Your task to perform on an android device: allow cookies in the chrome app Image 0: 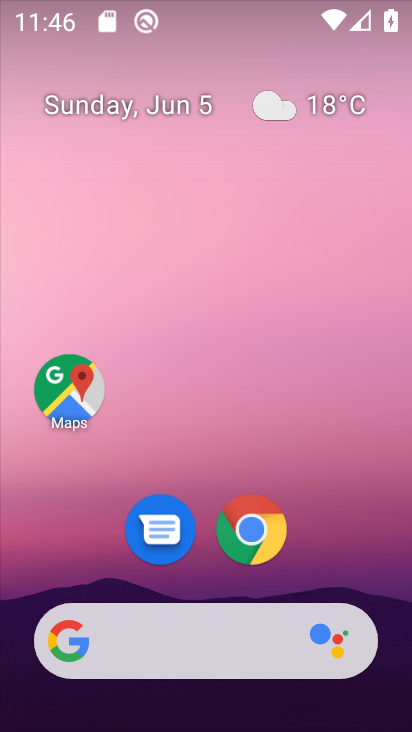
Step 0: click (254, 527)
Your task to perform on an android device: allow cookies in the chrome app Image 1: 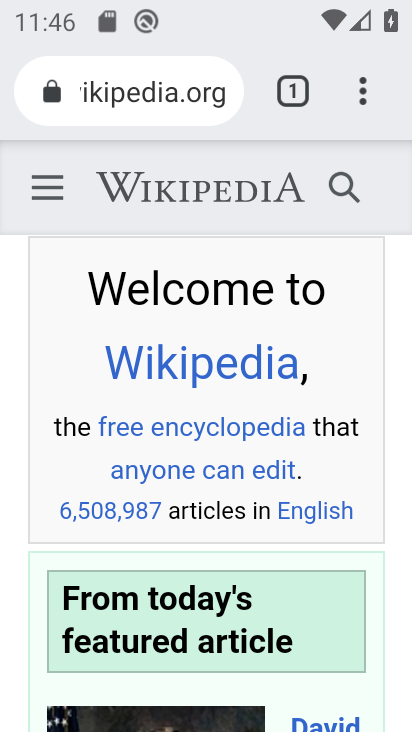
Step 1: click (358, 93)
Your task to perform on an android device: allow cookies in the chrome app Image 2: 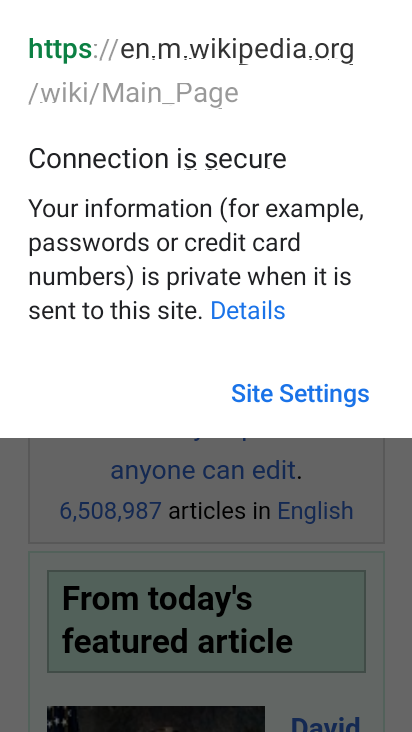
Step 2: click (192, 555)
Your task to perform on an android device: allow cookies in the chrome app Image 3: 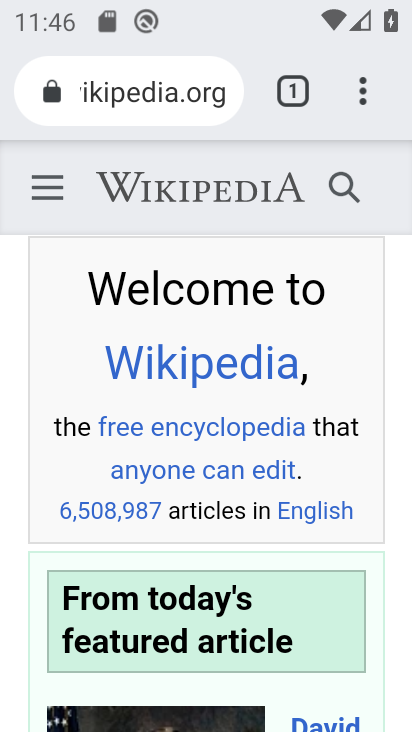
Step 3: click (366, 88)
Your task to perform on an android device: allow cookies in the chrome app Image 4: 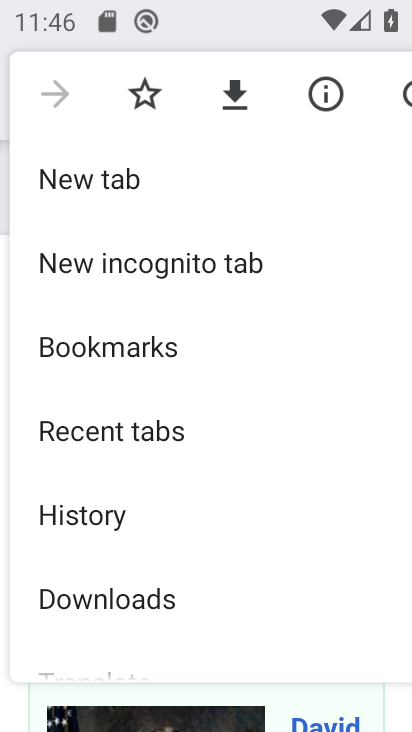
Step 4: drag from (153, 609) to (109, 215)
Your task to perform on an android device: allow cookies in the chrome app Image 5: 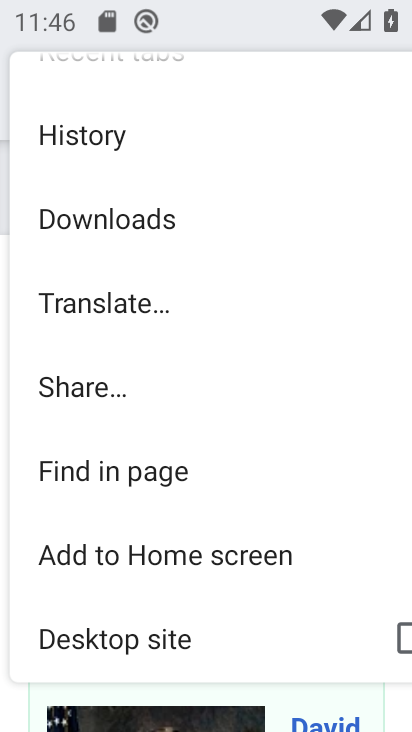
Step 5: drag from (123, 620) to (120, 230)
Your task to perform on an android device: allow cookies in the chrome app Image 6: 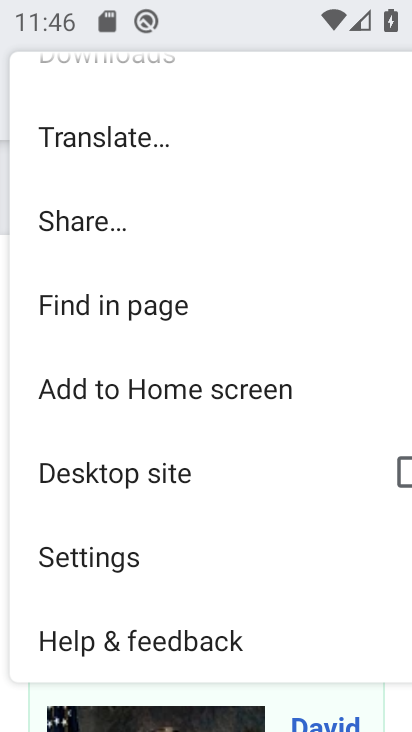
Step 6: click (138, 553)
Your task to perform on an android device: allow cookies in the chrome app Image 7: 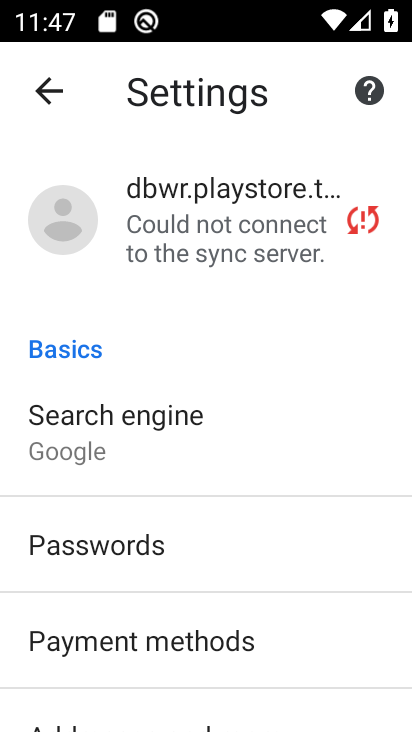
Step 7: drag from (229, 630) to (167, 248)
Your task to perform on an android device: allow cookies in the chrome app Image 8: 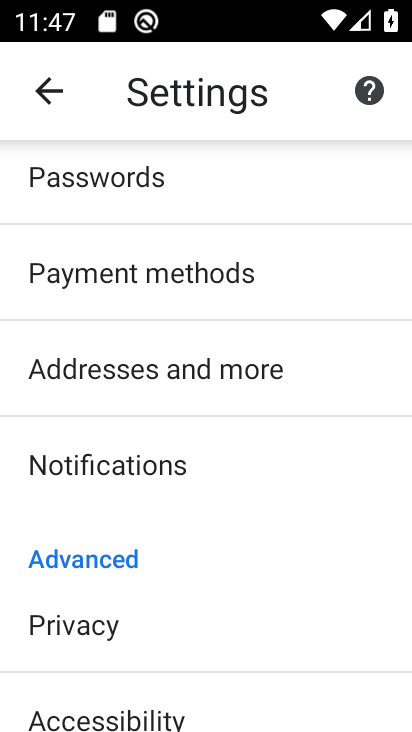
Step 8: drag from (146, 682) to (132, 268)
Your task to perform on an android device: allow cookies in the chrome app Image 9: 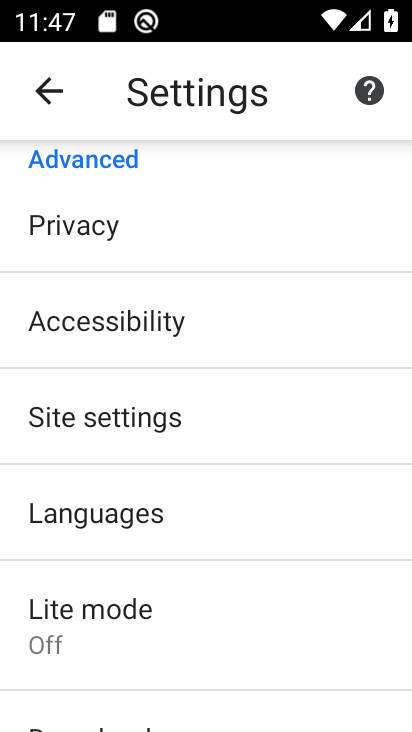
Step 9: click (154, 418)
Your task to perform on an android device: allow cookies in the chrome app Image 10: 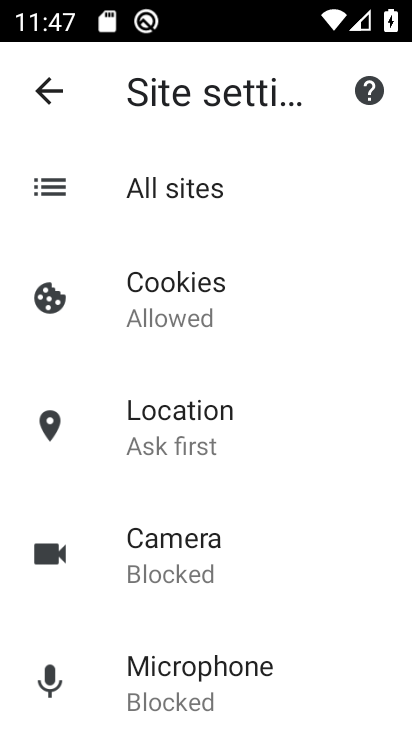
Step 10: click (152, 319)
Your task to perform on an android device: allow cookies in the chrome app Image 11: 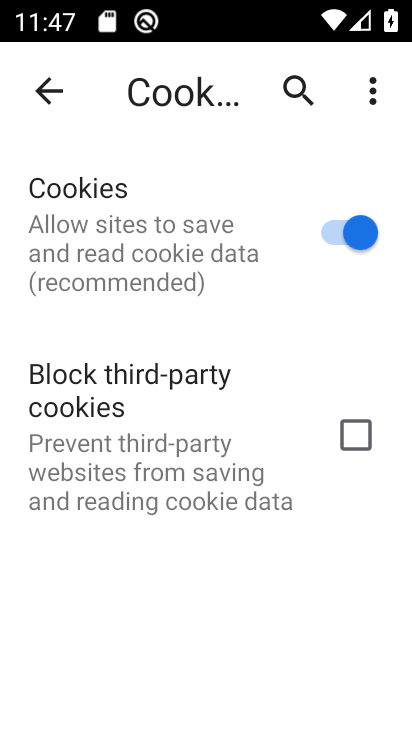
Step 11: task complete